Your task to perform on an android device: View the shopping cart on bestbuy.com. Add "usb-a to usb-b" to the cart on bestbuy.com Image 0: 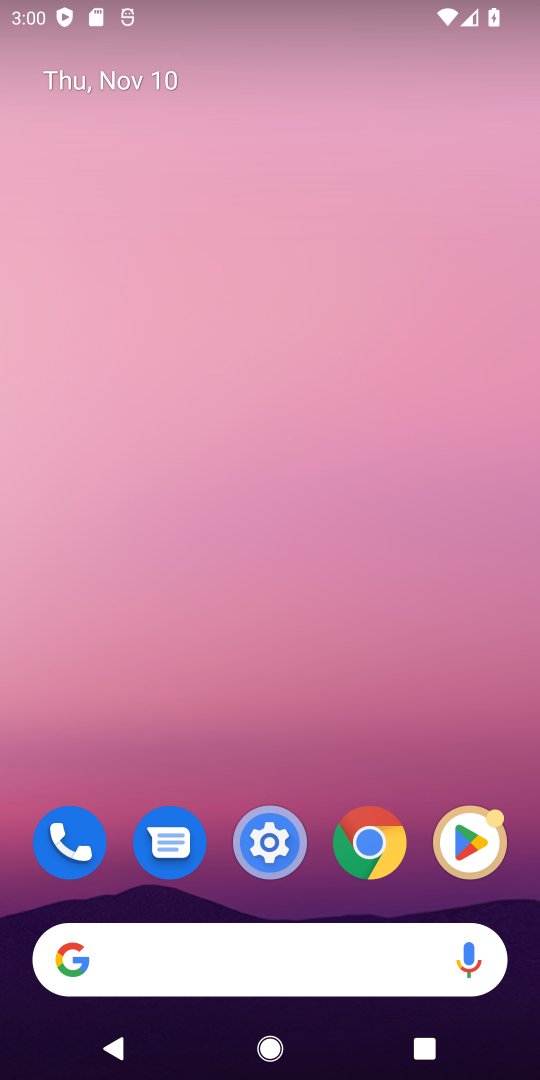
Step 0: press home button
Your task to perform on an android device: View the shopping cart on bestbuy.com. Add "usb-a to usb-b" to the cart on bestbuy.com Image 1: 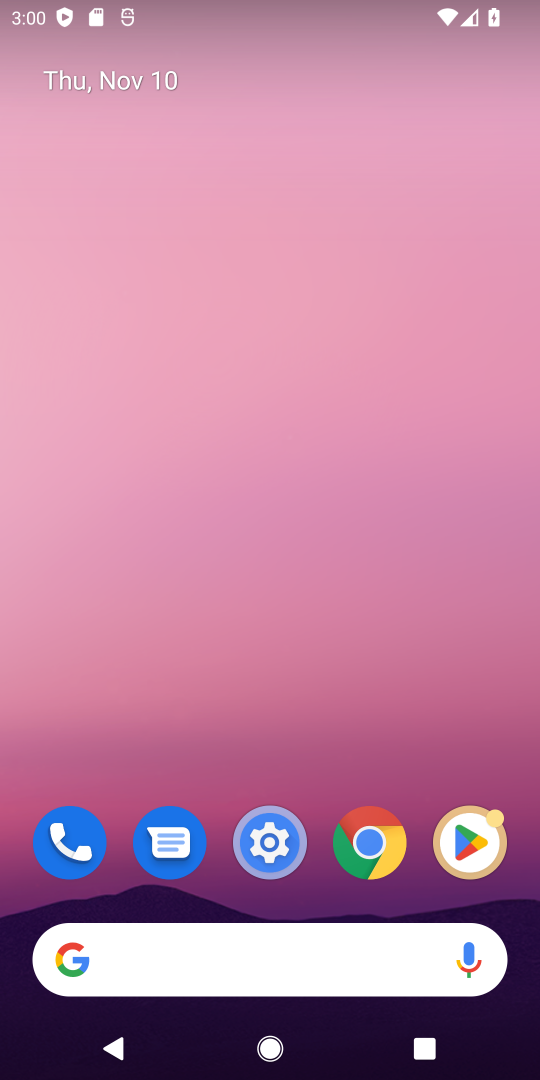
Step 1: click (108, 955)
Your task to perform on an android device: View the shopping cart on bestbuy.com. Add "usb-a to usb-b" to the cart on bestbuy.com Image 2: 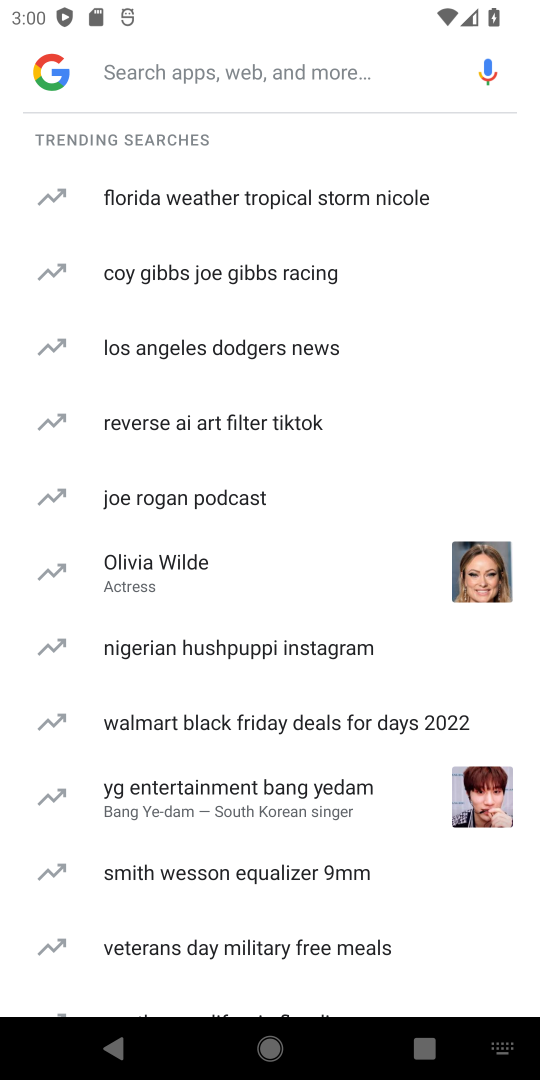
Step 2: type "bestbuy.com"
Your task to perform on an android device: View the shopping cart on bestbuy.com. Add "usb-a to usb-b" to the cart on bestbuy.com Image 3: 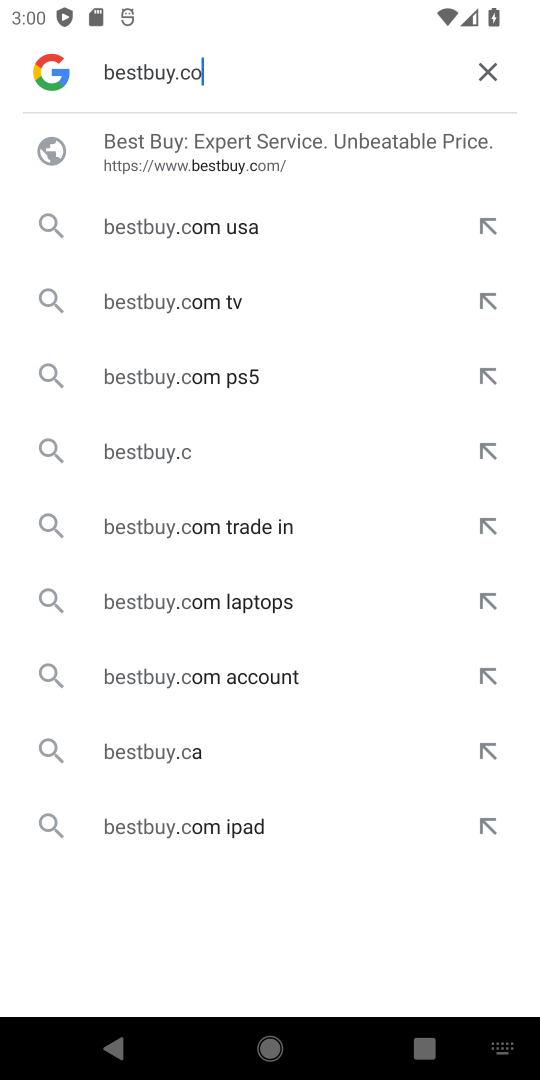
Step 3: press enter
Your task to perform on an android device: View the shopping cart on bestbuy.com. Add "usb-a to usb-b" to the cart on bestbuy.com Image 4: 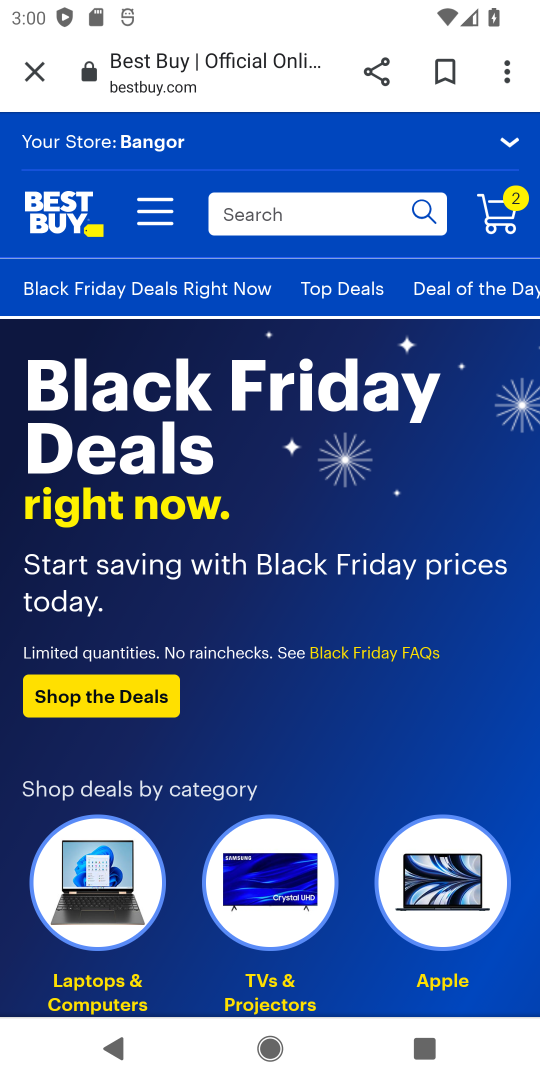
Step 4: click (506, 211)
Your task to perform on an android device: View the shopping cart on bestbuy.com. Add "usb-a to usb-b" to the cart on bestbuy.com Image 5: 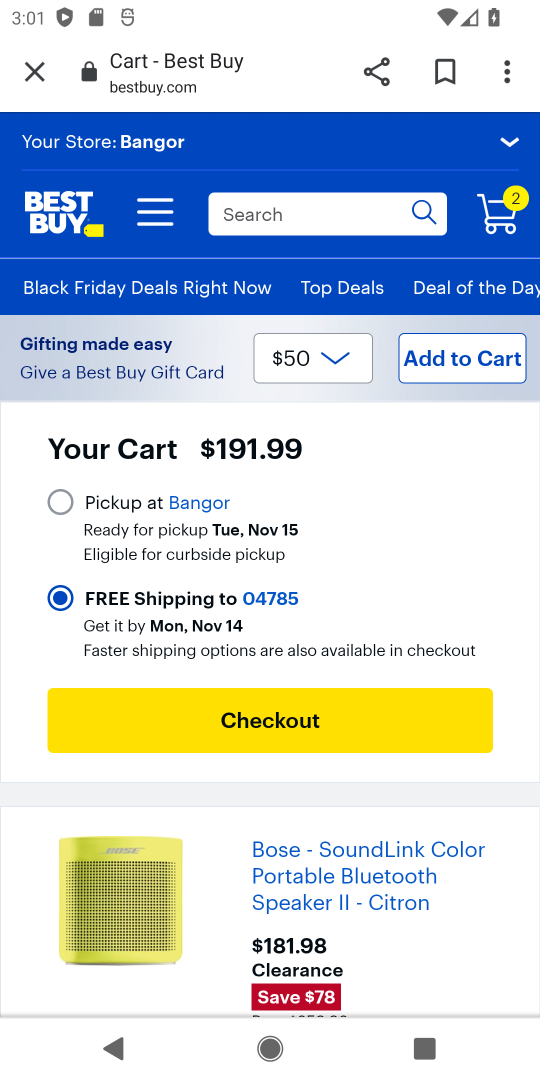
Step 5: click (260, 209)
Your task to perform on an android device: View the shopping cart on bestbuy.com. Add "usb-a to usb-b" to the cart on bestbuy.com Image 6: 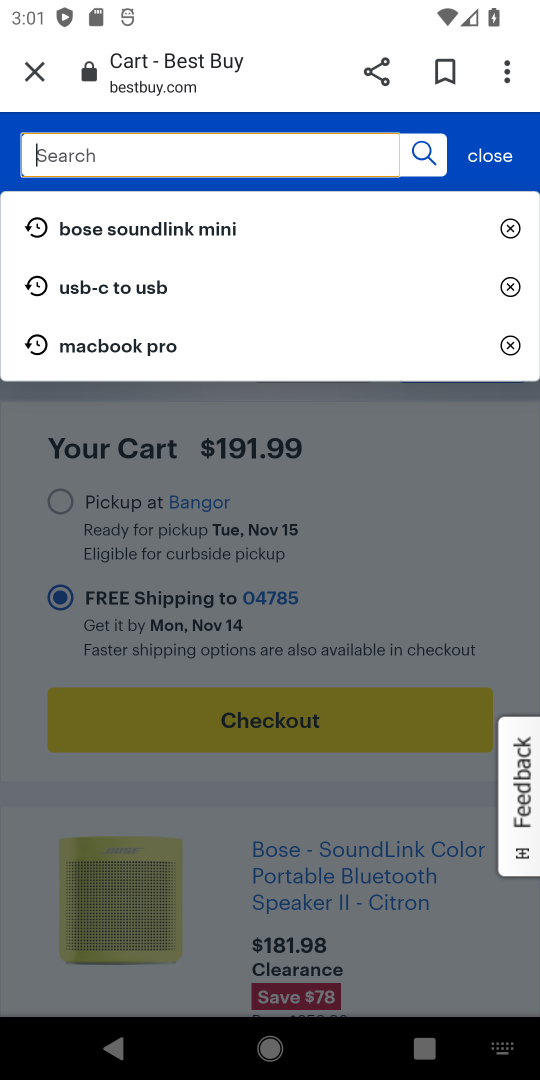
Step 6: type "usb-a to usb-b"
Your task to perform on an android device: View the shopping cart on bestbuy.com. Add "usb-a to usb-b" to the cart on bestbuy.com Image 7: 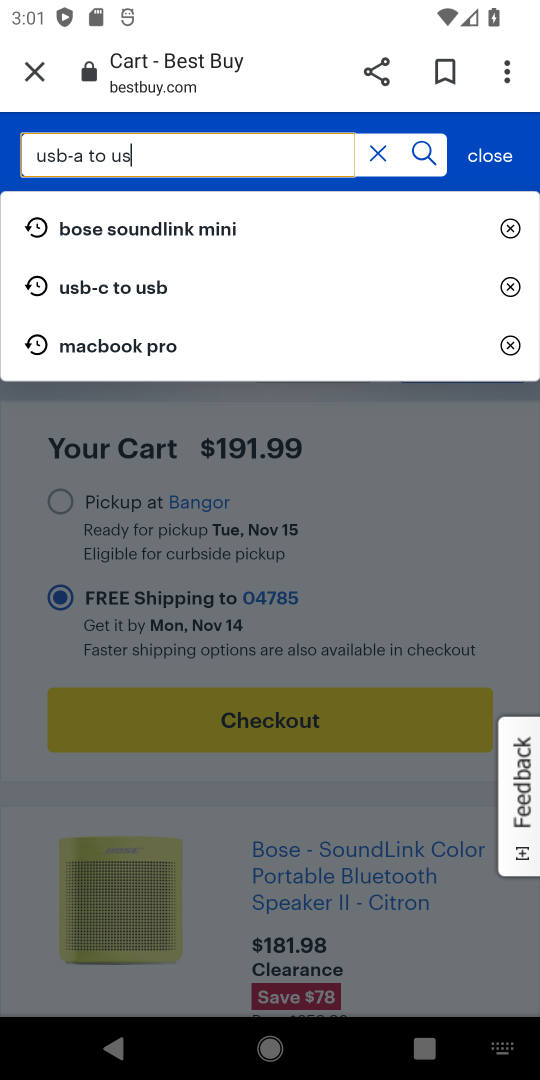
Step 7: press enter
Your task to perform on an android device: View the shopping cart on bestbuy.com. Add "usb-a to usb-b" to the cart on bestbuy.com Image 8: 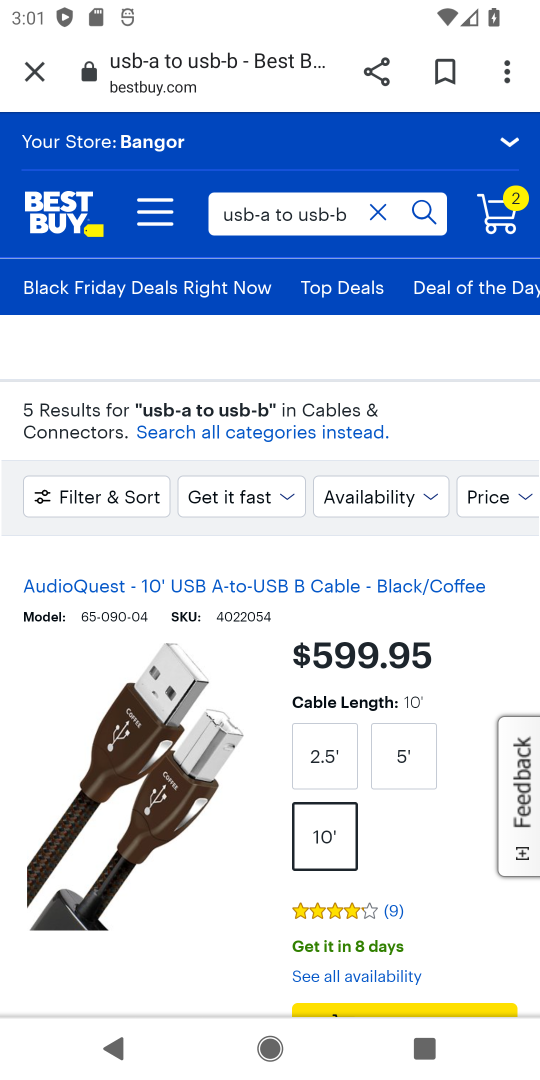
Step 8: drag from (392, 862) to (395, 621)
Your task to perform on an android device: View the shopping cart on bestbuy.com. Add "usb-a to usb-b" to the cart on bestbuy.com Image 9: 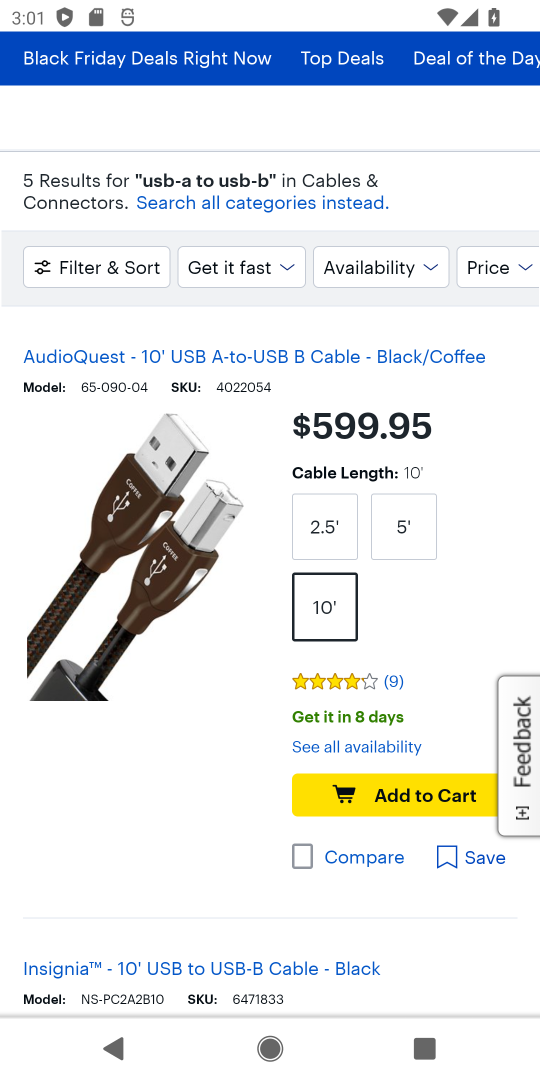
Step 9: click (389, 797)
Your task to perform on an android device: View the shopping cart on bestbuy.com. Add "usb-a to usb-b" to the cart on bestbuy.com Image 10: 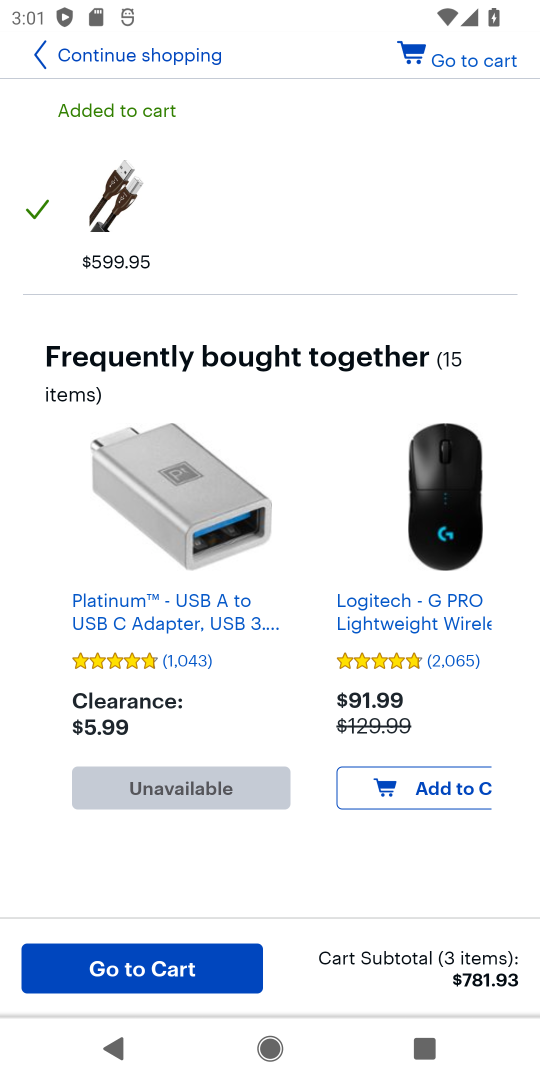
Step 10: task complete